Your task to perform on an android device: delete a single message in the gmail app Image 0: 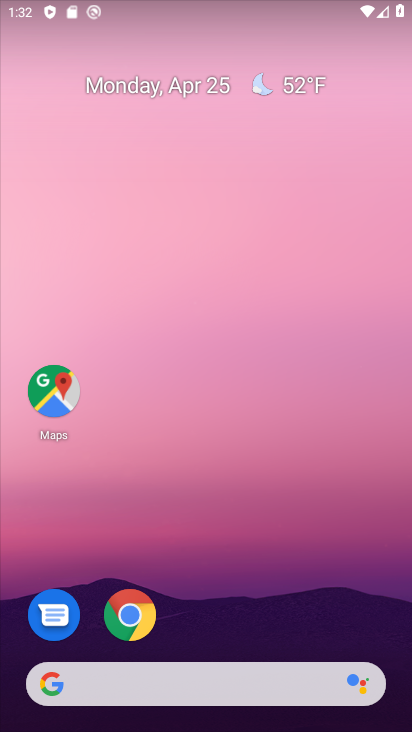
Step 0: drag from (205, 575) to (205, 37)
Your task to perform on an android device: delete a single message in the gmail app Image 1: 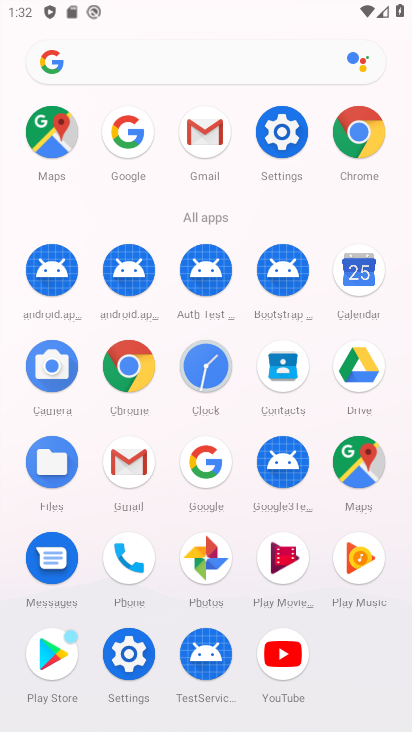
Step 1: click (203, 134)
Your task to perform on an android device: delete a single message in the gmail app Image 2: 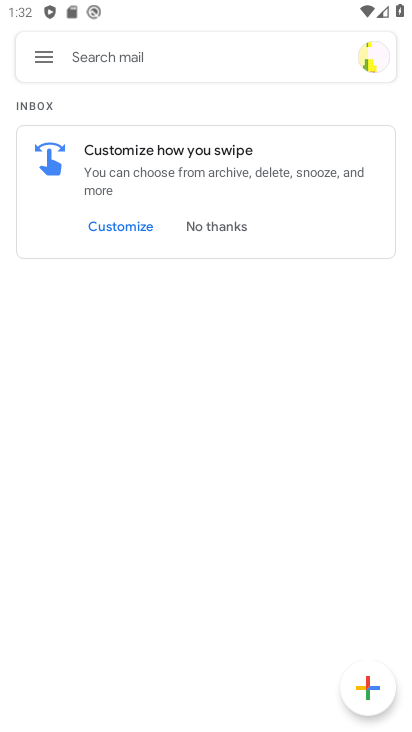
Step 2: click (45, 58)
Your task to perform on an android device: delete a single message in the gmail app Image 3: 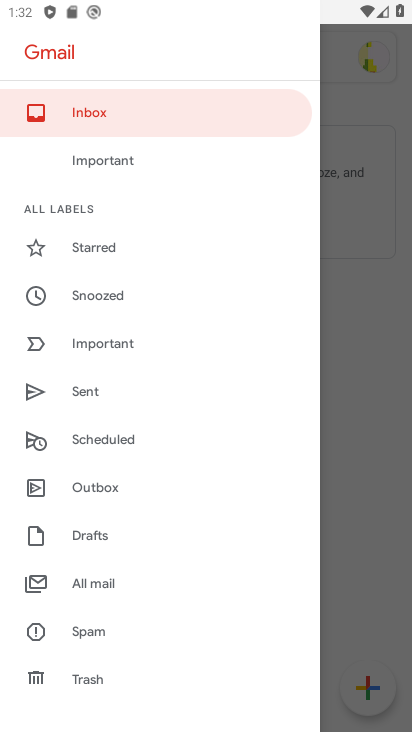
Step 3: drag from (173, 517) to (210, 453)
Your task to perform on an android device: delete a single message in the gmail app Image 4: 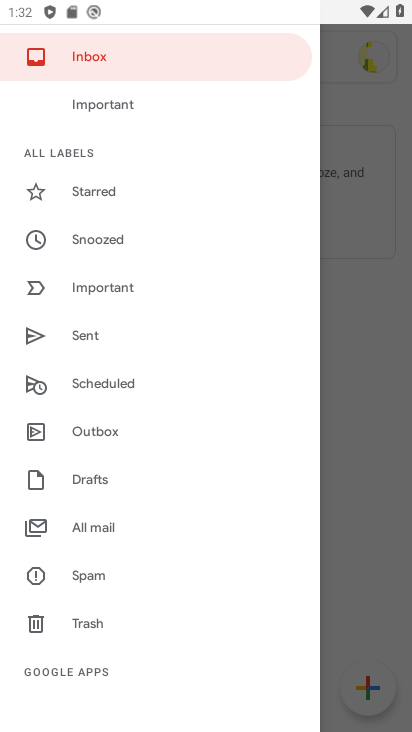
Step 4: click (105, 529)
Your task to perform on an android device: delete a single message in the gmail app Image 5: 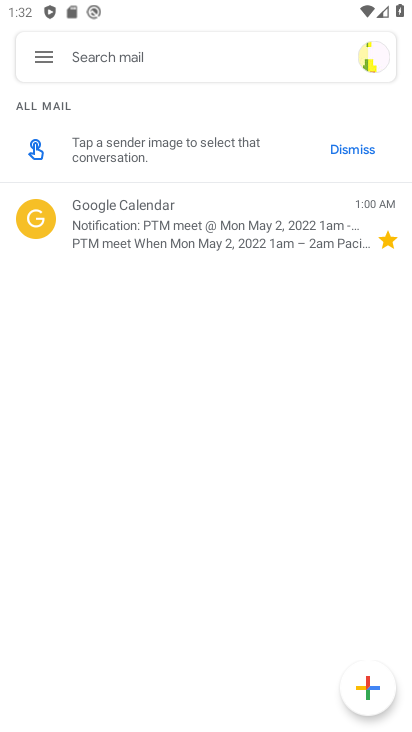
Step 5: click (207, 241)
Your task to perform on an android device: delete a single message in the gmail app Image 6: 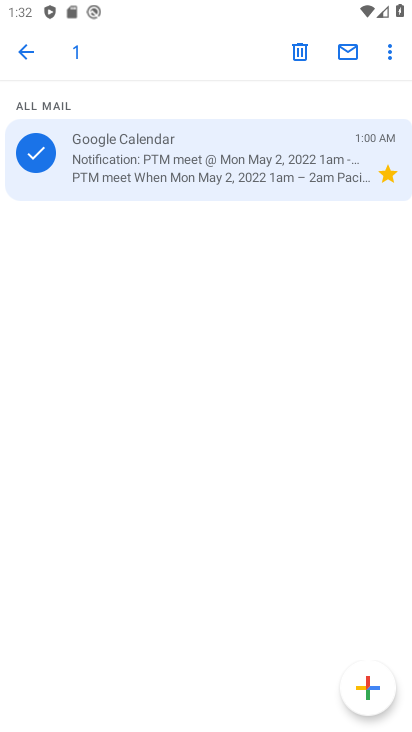
Step 6: click (300, 59)
Your task to perform on an android device: delete a single message in the gmail app Image 7: 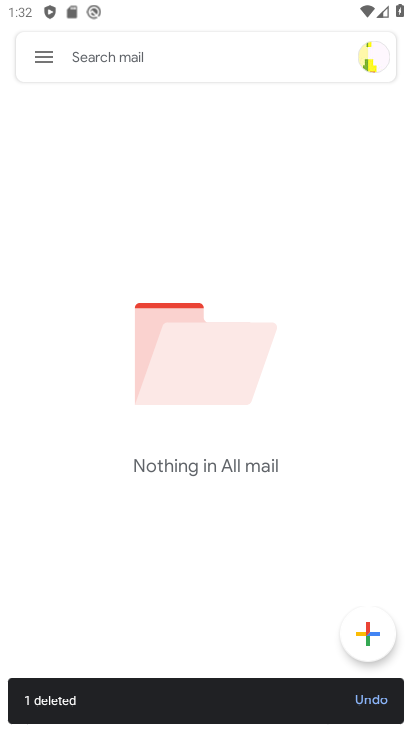
Step 7: task complete